Your task to perform on an android device: What is the recent news? Image 0: 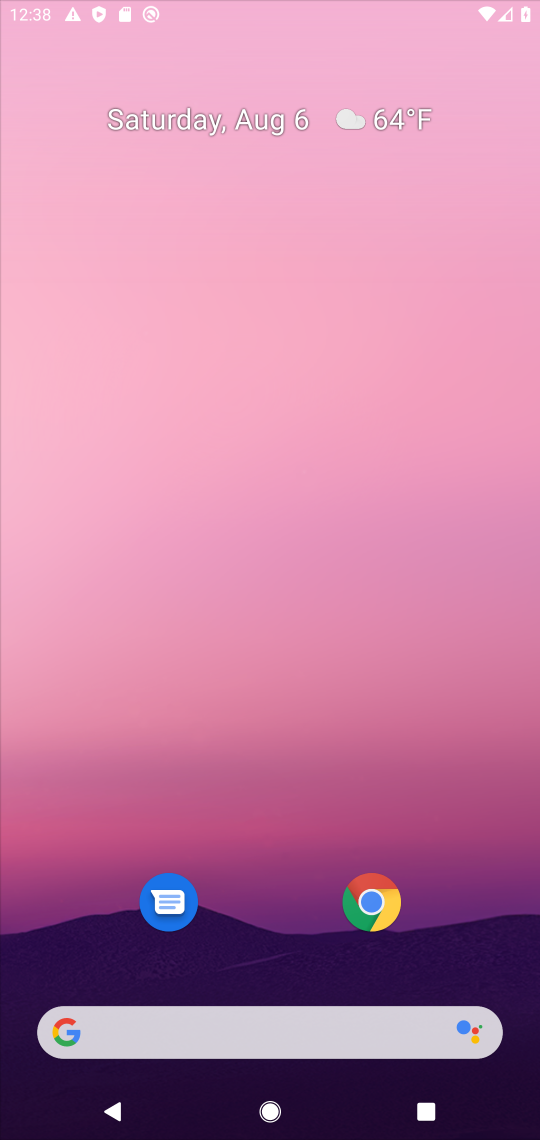
Step 0: press home button
Your task to perform on an android device: What is the recent news? Image 1: 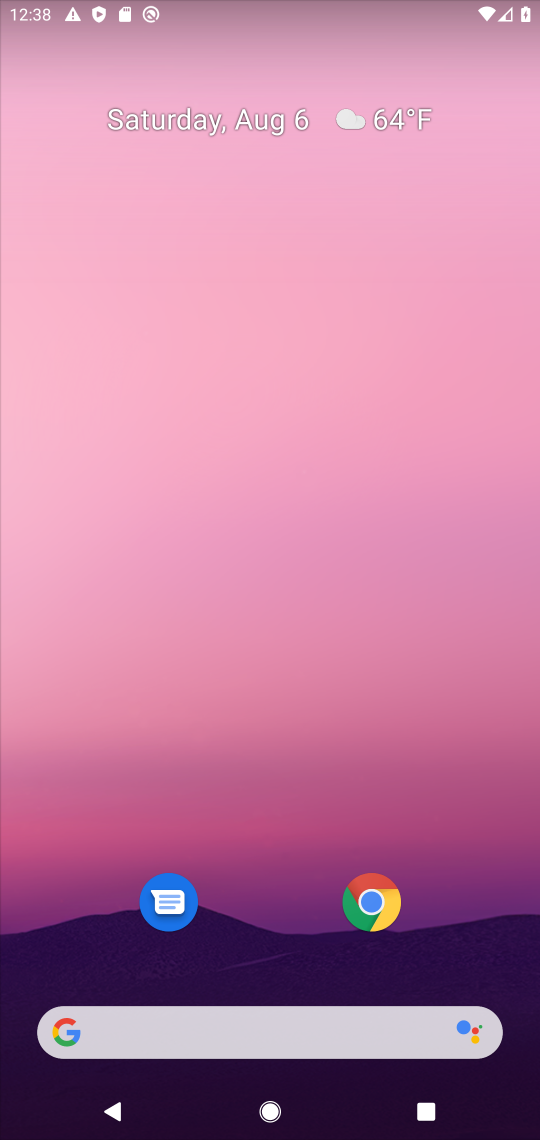
Step 1: click (233, 1030)
Your task to perform on an android device: What is the recent news? Image 2: 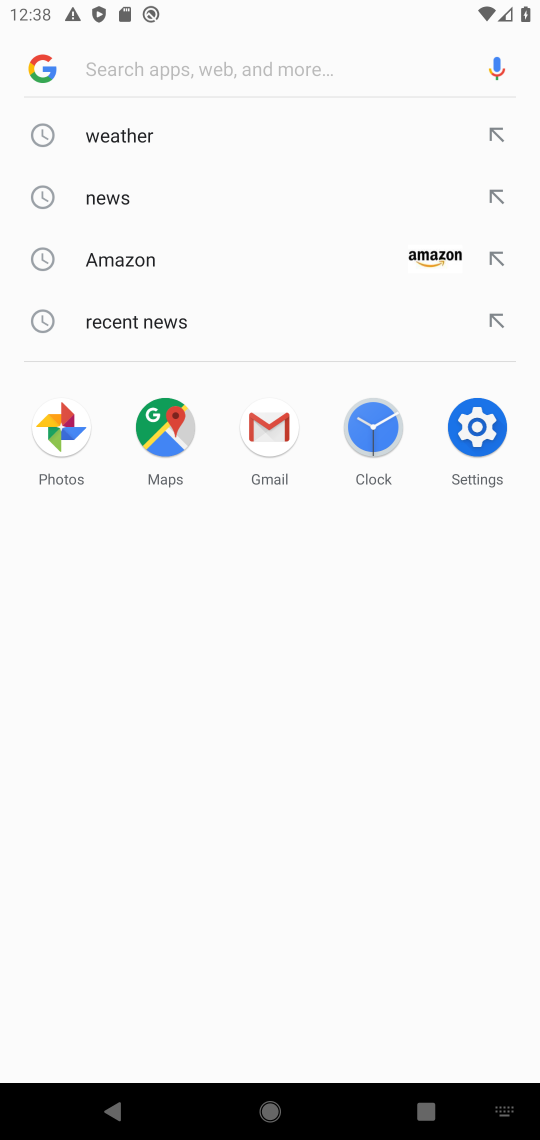
Step 2: click (39, 59)
Your task to perform on an android device: What is the recent news? Image 3: 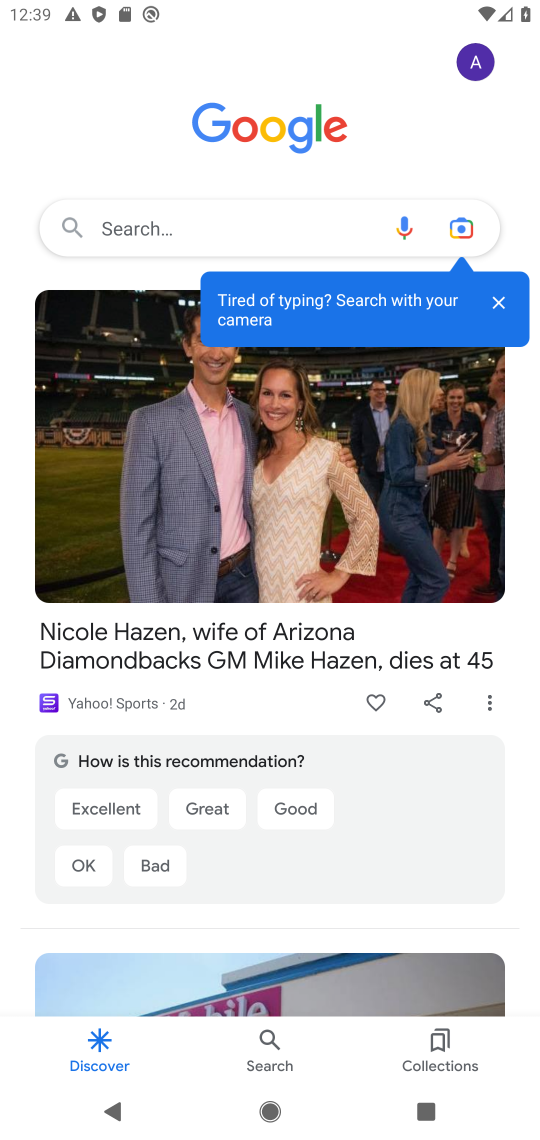
Step 3: task complete